Your task to perform on an android device: Open Youtube and go to "Your channel" Image 0: 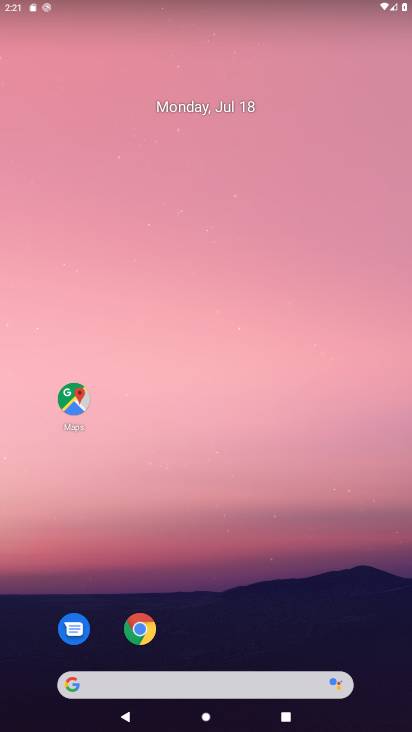
Step 0: drag from (209, 621) to (300, 80)
Your task to perform on an android device: Open Youtube and go to "Your channel" Image 1: 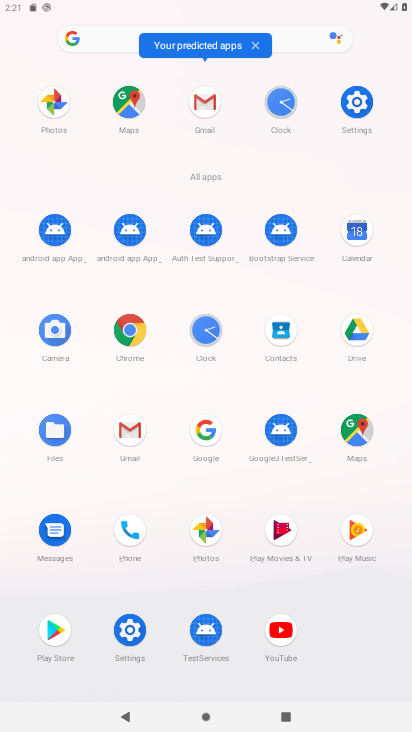
Step 1: click (278, 646)
Your task to perform on an android device: Open Youtube and go to "Your channel" Image 2: 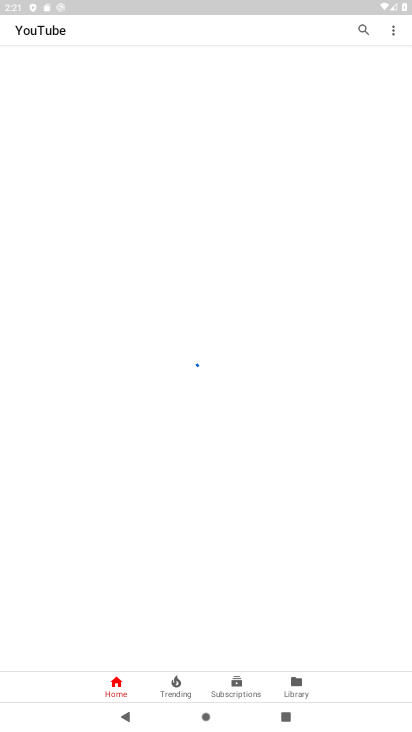
Step 2: click (293, 683)
Your task to perform on an android device: Open Youtube and go to "Your channel" Image 3: 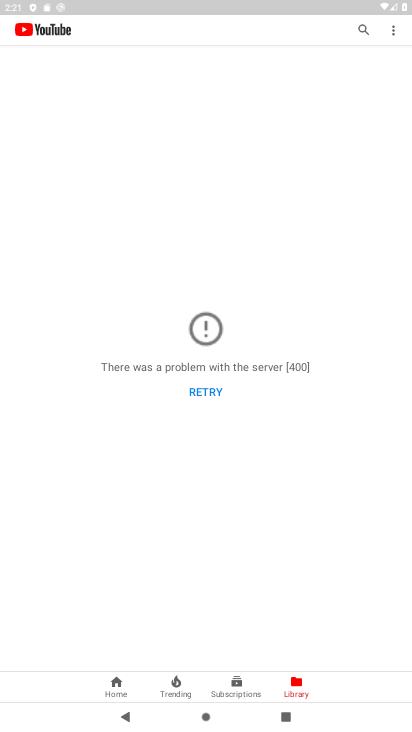
Step 3: task complete